Your task to perform on an android device: Open location settings Image 0: 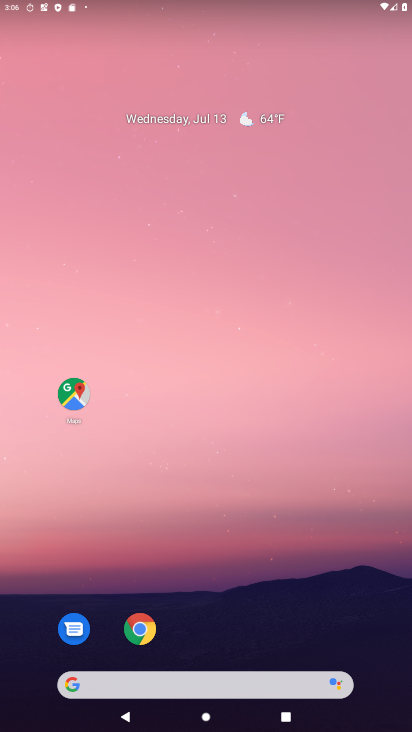
Step 0: drag from (313, 672) to (399, 44)
Your task to perform on an android device: Open location settings Image 1: 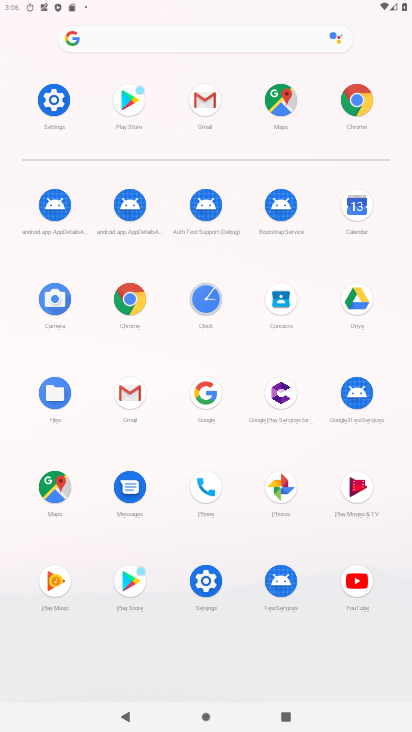
Step 1: click (49, 98)
Your task to perform on an android device: Open location settings Image 2: 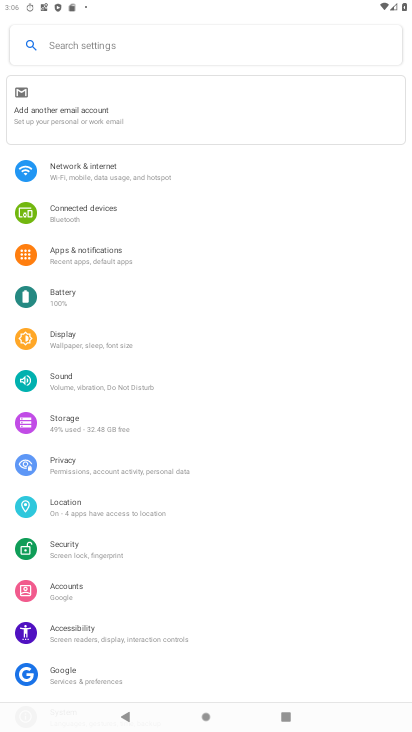
Step 2: click (75, 509)
Your task to perform on an android device: Open location settings Image 3: 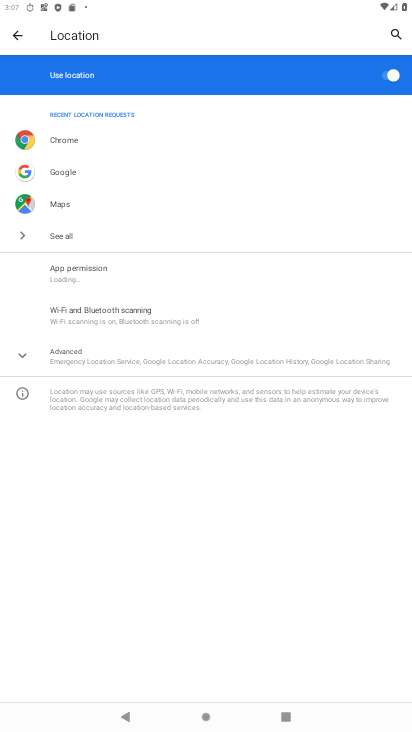
Step 3: task complete